Your task to perform on an android device: Search for macbook air on amazon.com, select the first entry, and add it to the cart. Image 0: 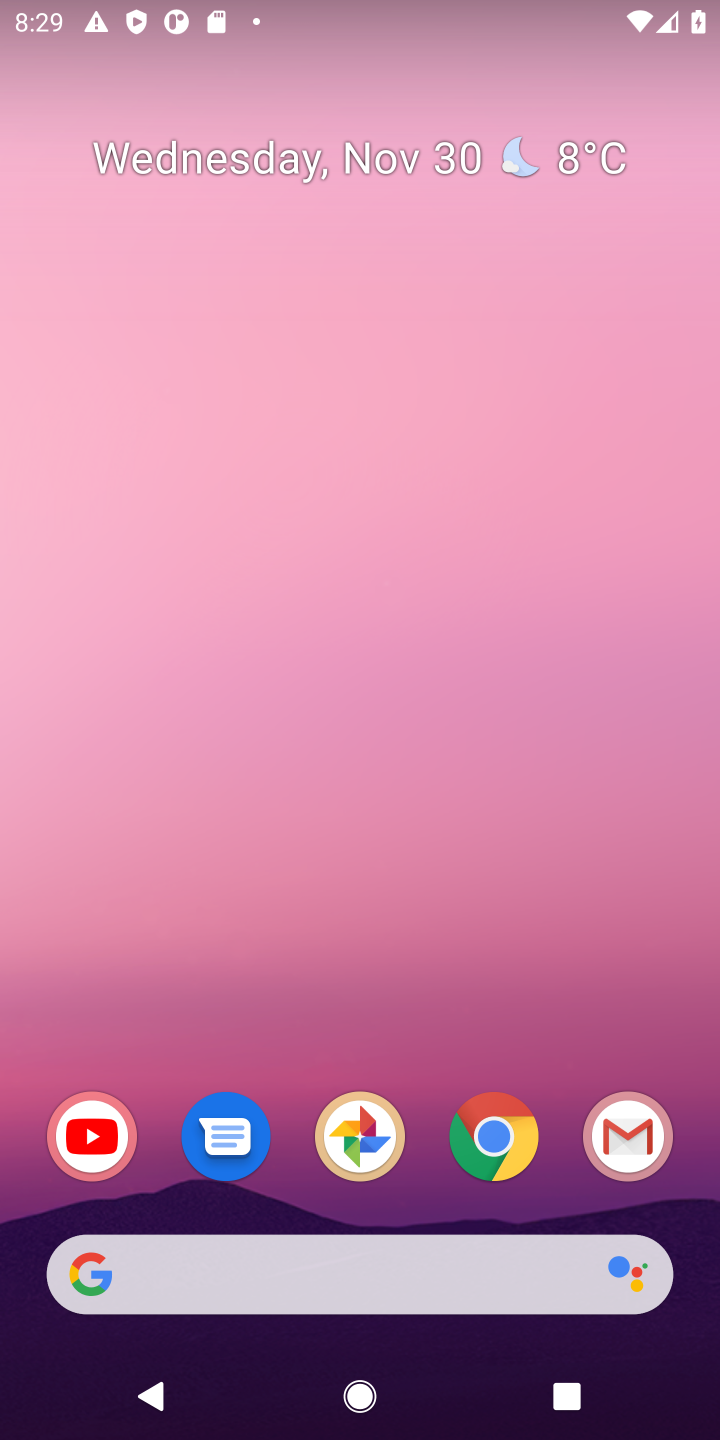
Step 0: click (513, 1140)
Your task to perform on an android device: Search for macbook air on amazon.com, select the first entry, and add it to the cart. Image 1: 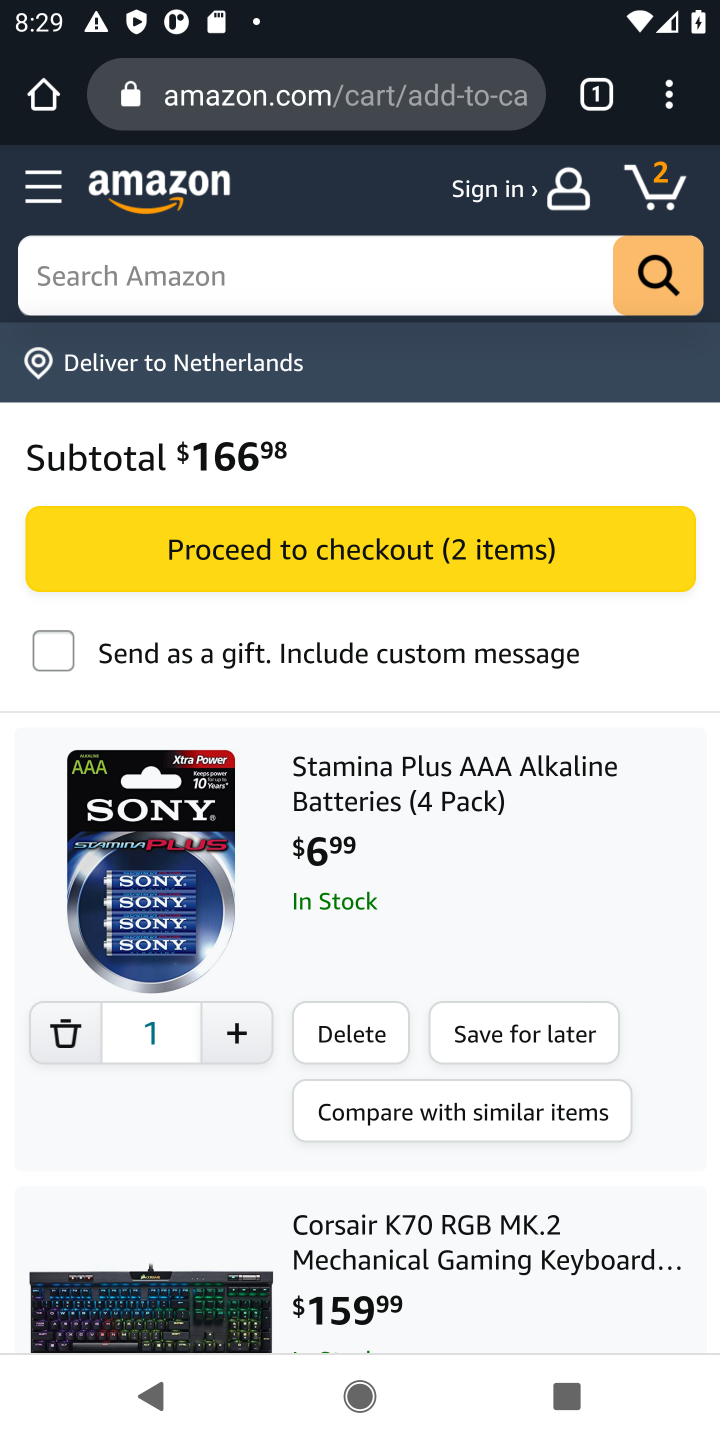
Step 1: click (195, 290)
Your task to perform on an android device: Search for macbook air on amazon.com, select the first entry, and add it to the cart. Image 2: 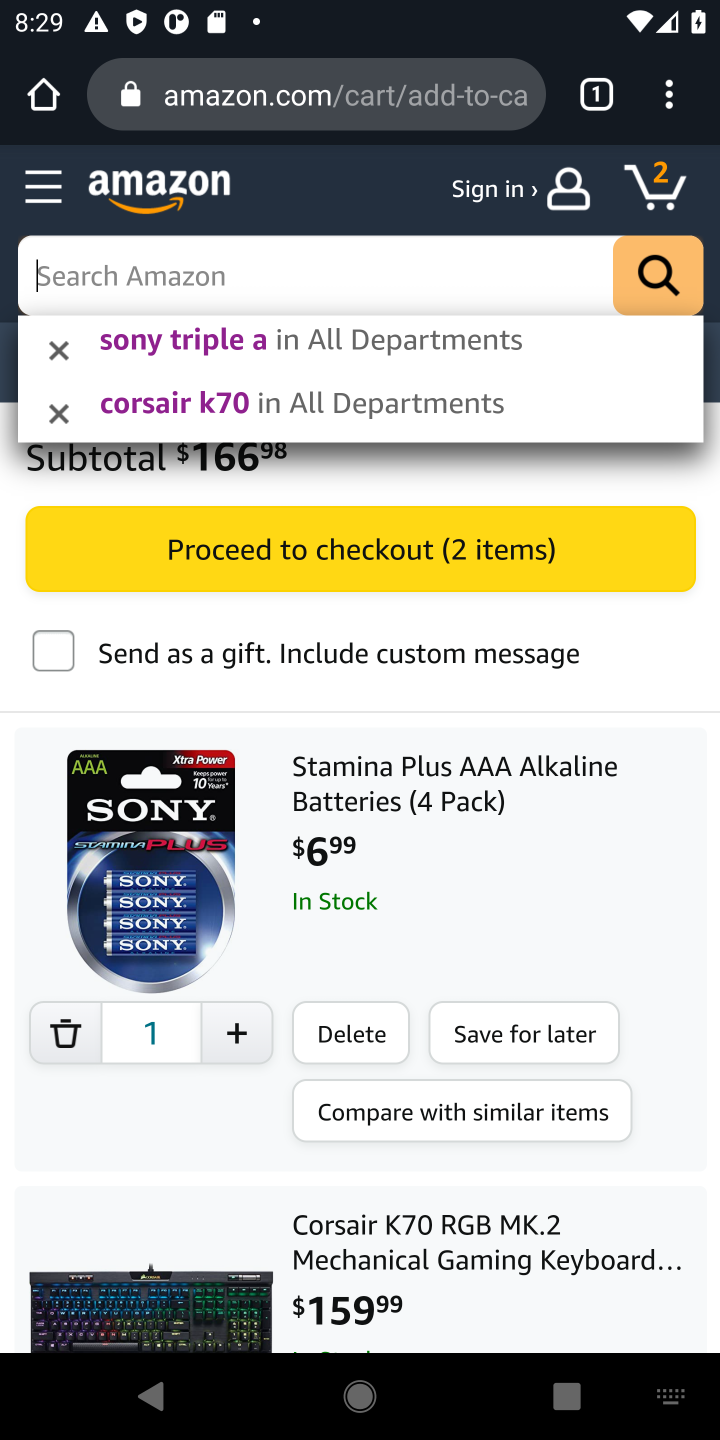
Step 2: type "macbook air "
Your task to perform on an android device: Search for macbook air on amazon.com, select the first entry, and add it to the cart. Image 3: 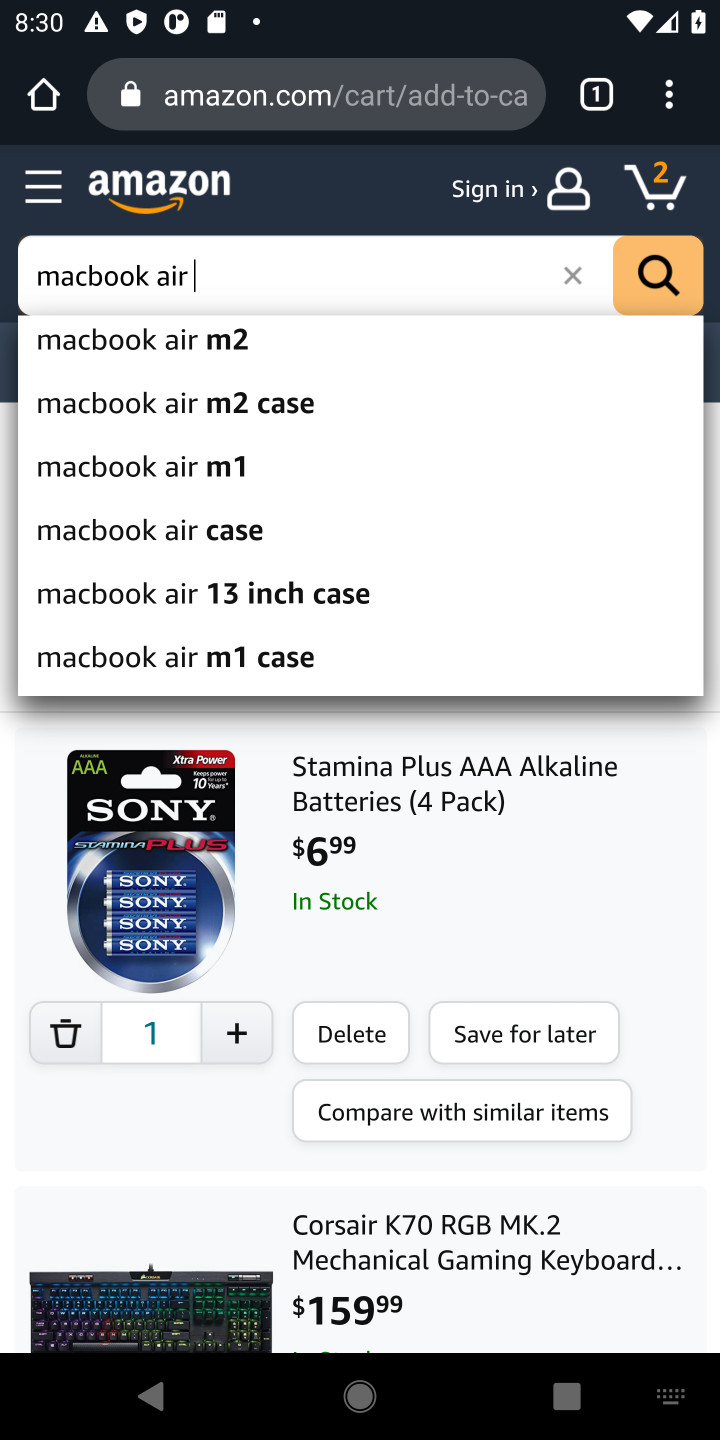
Step 3: click (664, 268)
Your task to perform on an android device: Search for macbook air on amazon.com, select the first entry, and add it to the cart. Image 4: 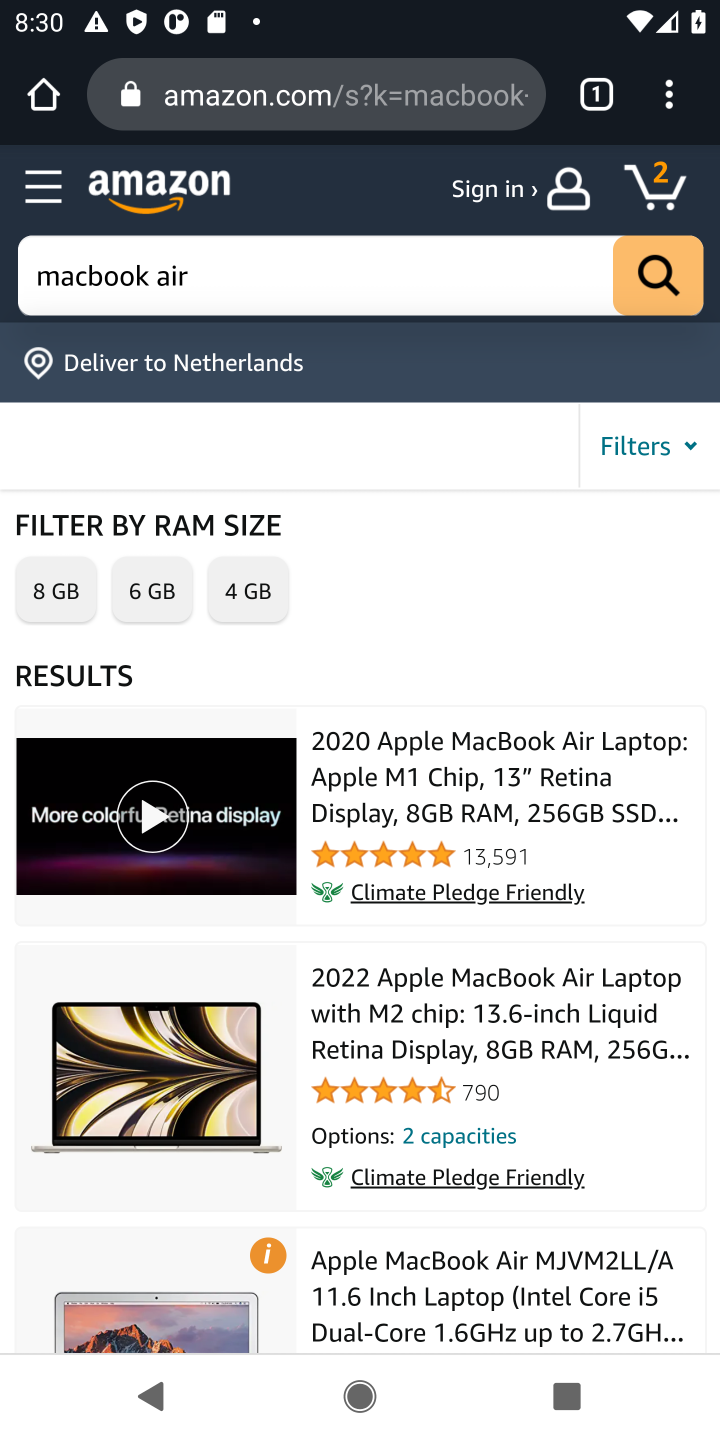
Step 4: click (466, 837)
Your task to perform on an android device: Search for macbook air on amazon.com, select the first entry, and add it to the cart. Image 5: 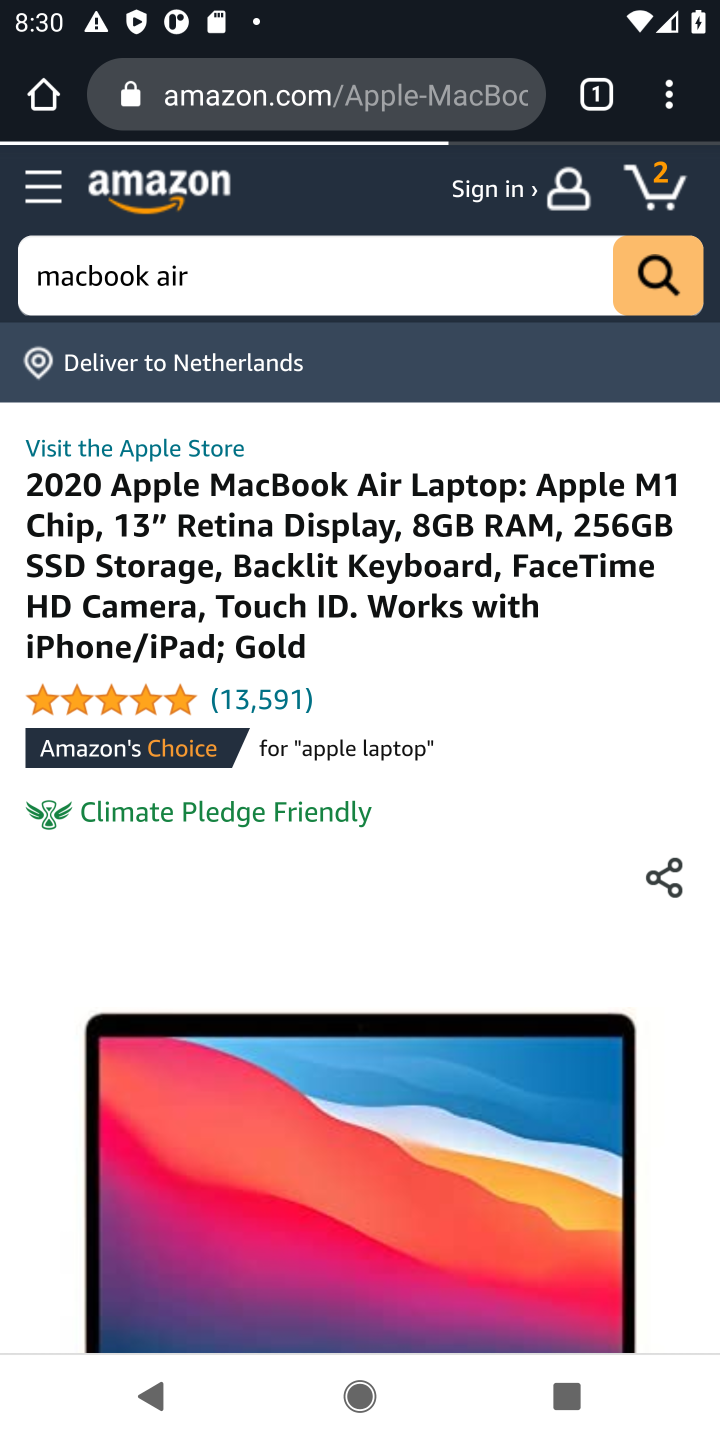
Step 5: task complete